Your task to perform on an android device: open app "ZOOM Cloud Meetings" Image 0: 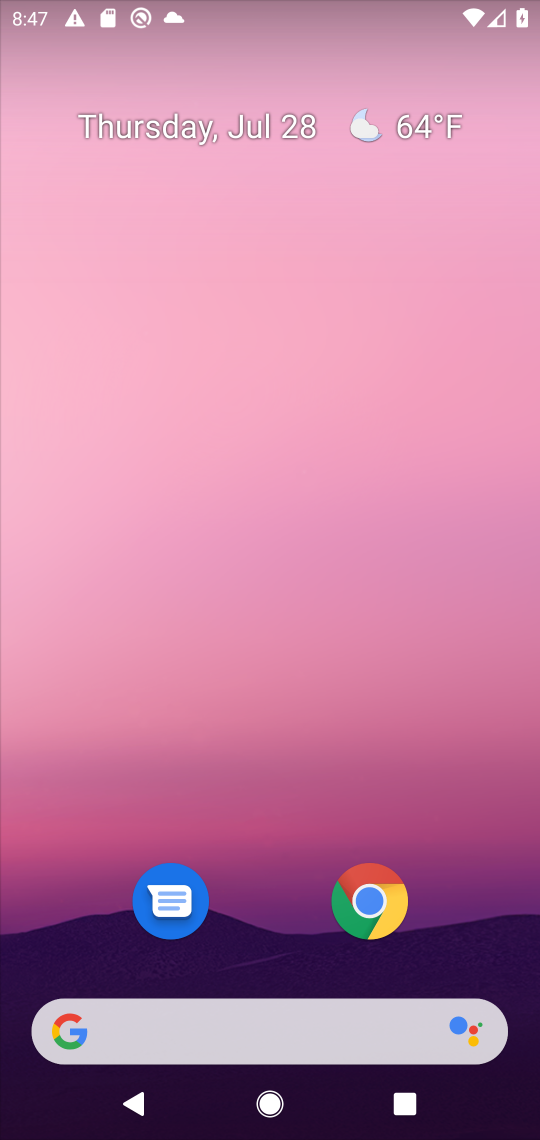
Step 0: drag from (515, 1083) to (423, 155)
Your task to perform on an android device: open app "ZOOM Cloud Meetings" Image 1: 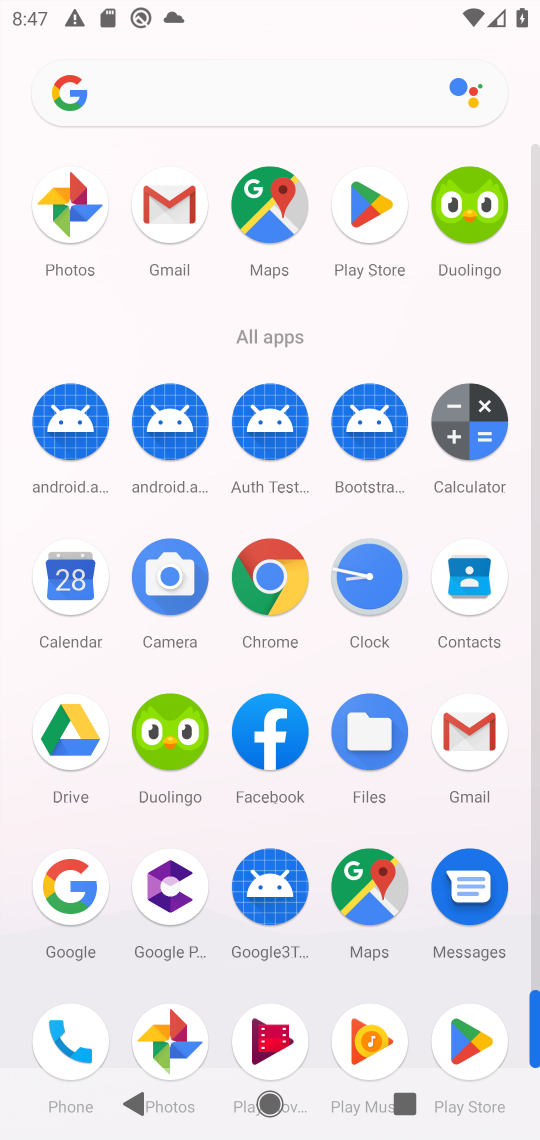
Step 1: task complete